Your task to perform on an android device: turn on translation in the chrome app Image 0: 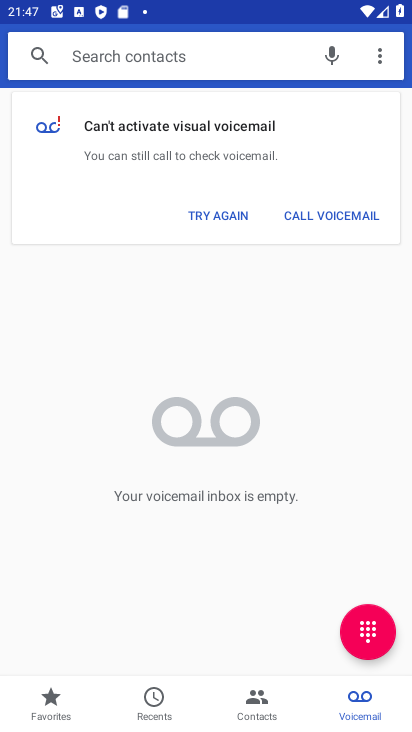
Step 0: press home button
Your task to perform on an android device: turn on translation in the chrome app Image 1: 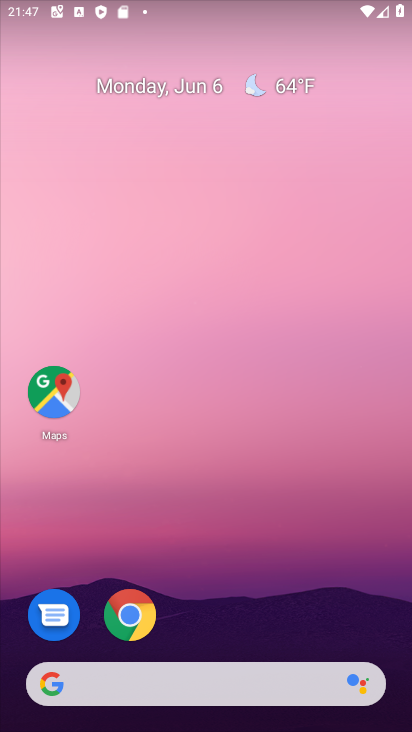
Step 1: click (140, 604)
Your task to perform on an android device: turn on translation in the chrome app Image 2: 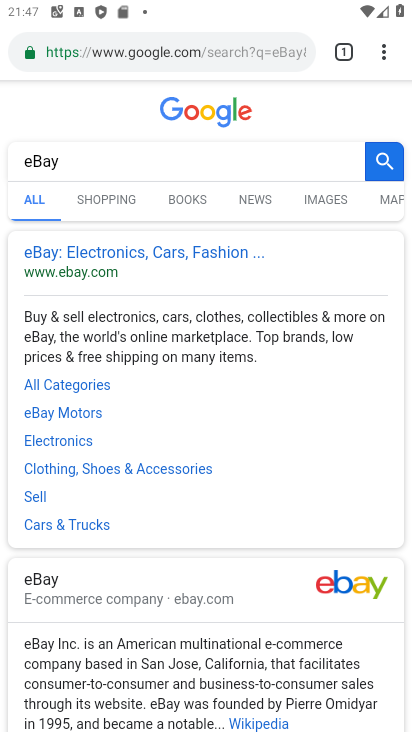
Step 2: click (381, 52)
Your task to perform on an android device: turn on translation in the chrome app Image 3: 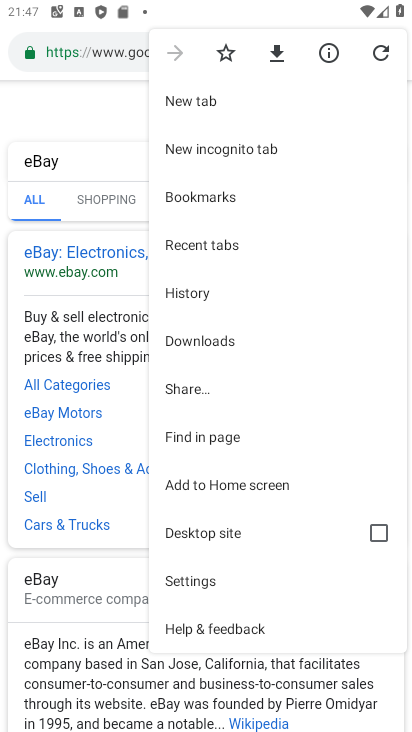
Step 3: click (200, 579)
Your task to perform on an android device: turn on translation in the chrome app Image 4: 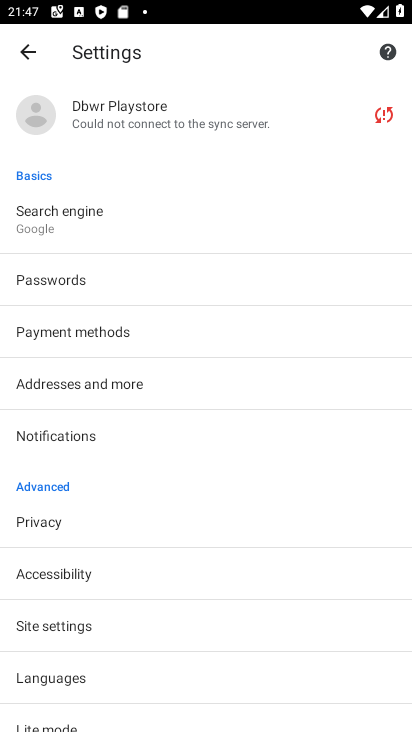
Step 4: click (63, 678)
Your task to perform on an android device: turn on translation in the chrome app Image 5: 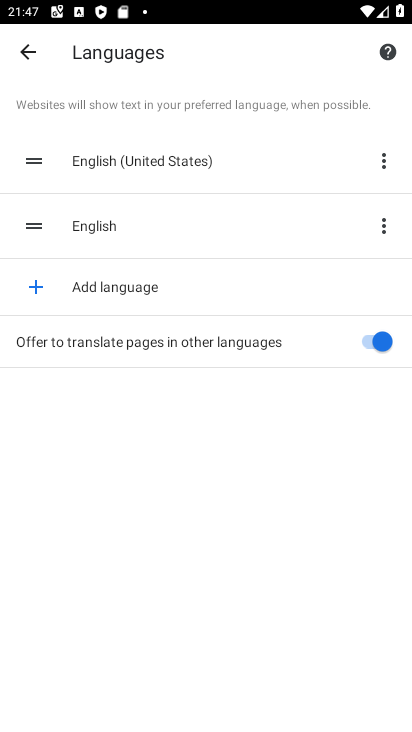
Step 5: task complete